Your task to perform on an android device: open chrome privacy settings Image 0: 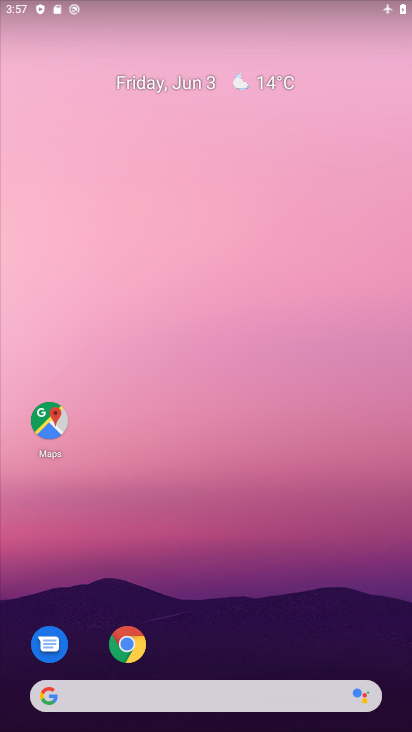
Step 0: click (131, 650)
Your task to perform on an android device: open chrome privacy settings Image 1: 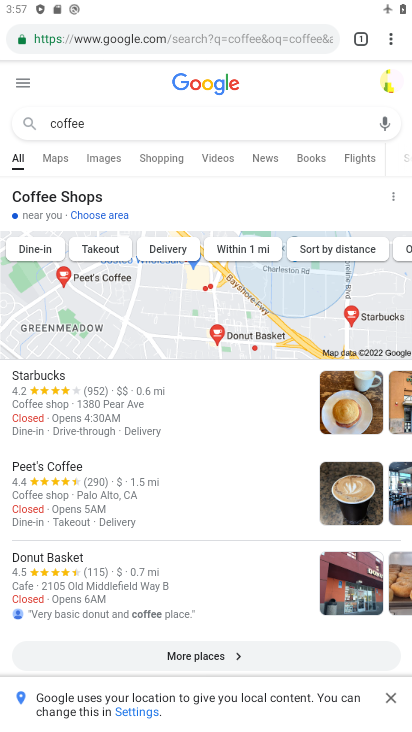
Step 1: click (398, 44)
Your task to perform on an android device: open chrome privacy settings Image 2: 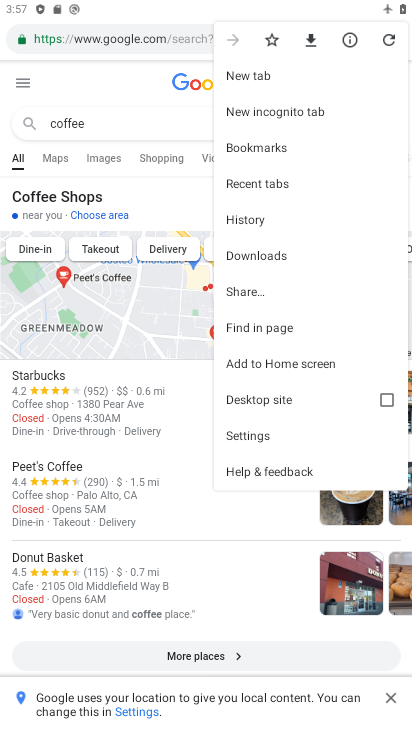
Step 2: click (285, 434)
Your task to perform on an android device: open chrome privacy settings Image 3: 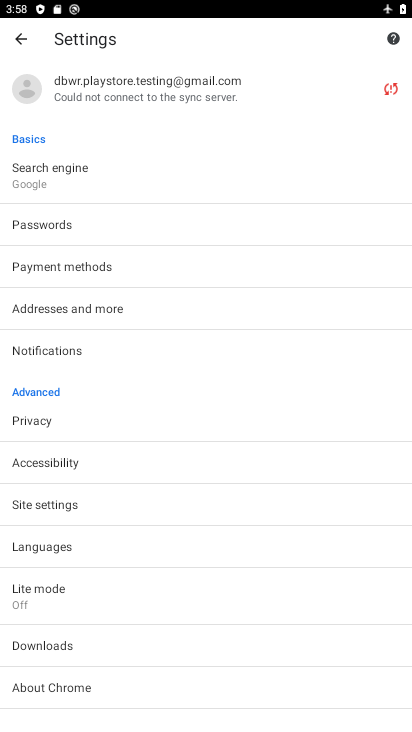
Step 3: click (285, 434)
Your task to perform on an android device: open chrome privacy settings Image 4: 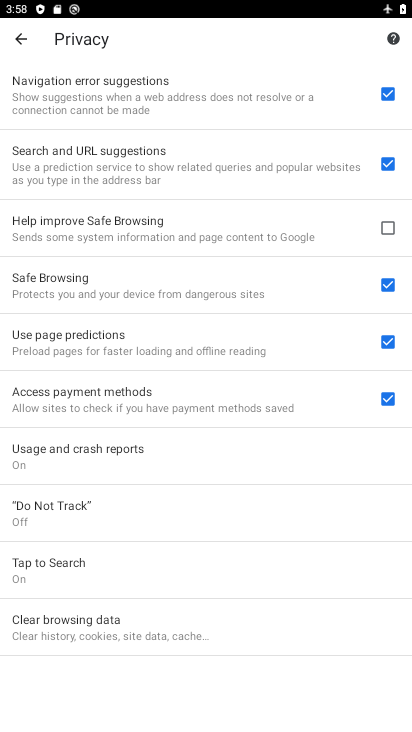
Step 4: task complete